Your task to perform on an android device: Go to ESPN.com Image 0: 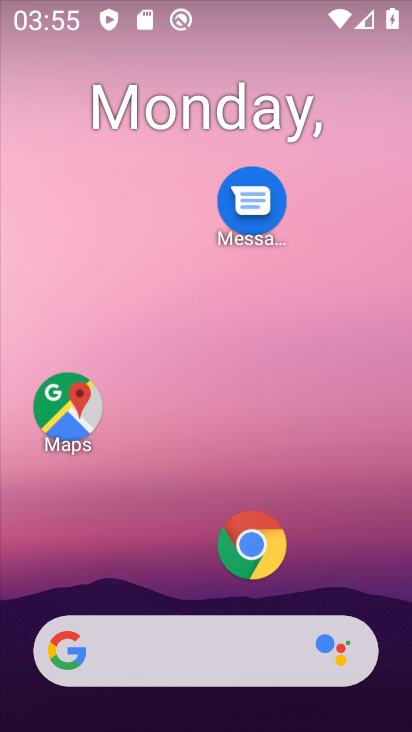
Step 0: click (239, 545)
Your task to perform on an android device: Go to ESPN.com Image 1: 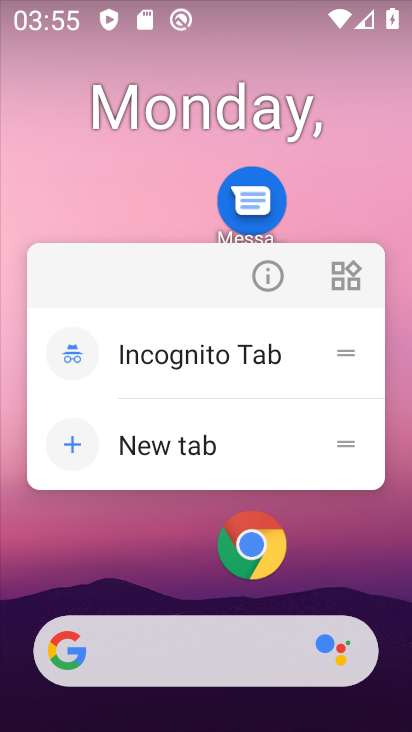
Step 1: click (261, 543)
Your task to perform on an android device: Go to ESPN.com Image 2: 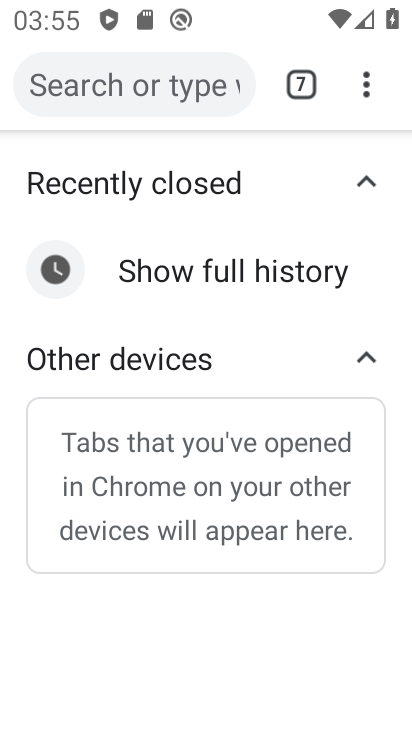
Step 2: click (301, 85)
Your task to perform on an android device: Go to ESPN.com Image 3: 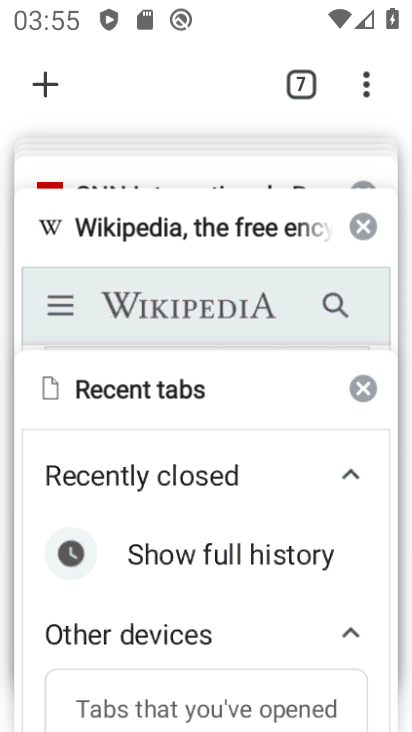
Step 3: drag from (170, 230) to (157, 652)
Your task to perform on an android device: Go to ESPN.com Image 4: 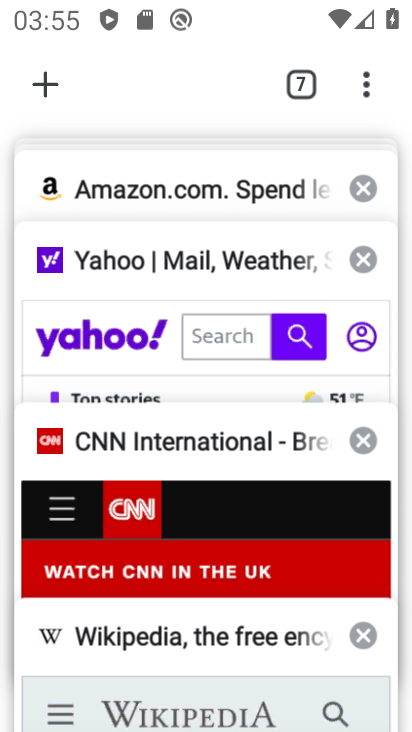
Step 4: drag from (173, 190) to (173, 568)
Your task to perform on an android device: Go to ESPN.com Image 5: 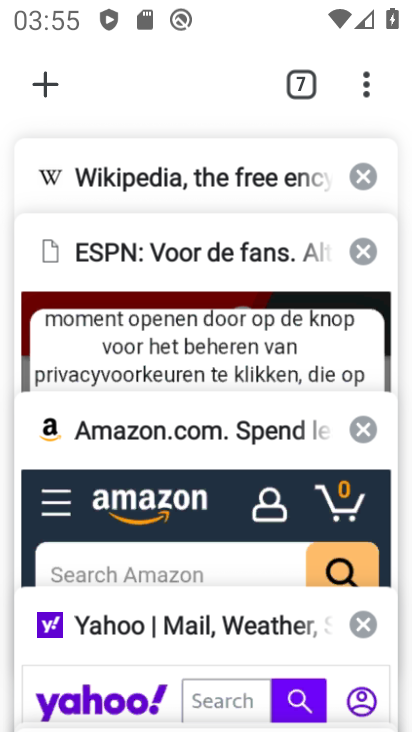
Step 5: drag from (148, 211) to (140, 461)
Your task to perform on an android device: Go to ESPN.com Image 6: 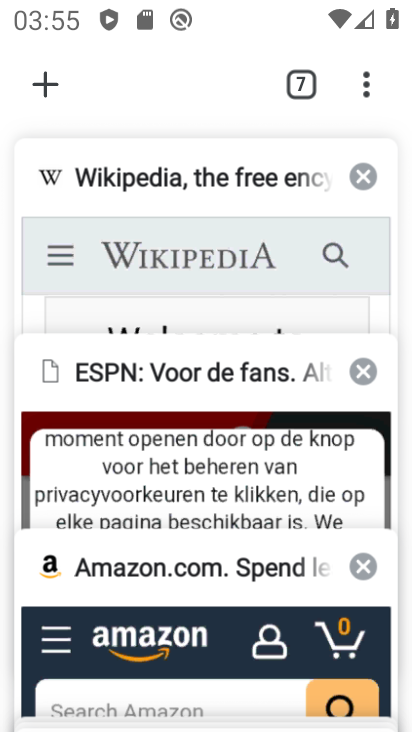
Step 6: click (126, 373)
Your task to perform on an android device: Go to ESPN.com Image 7: 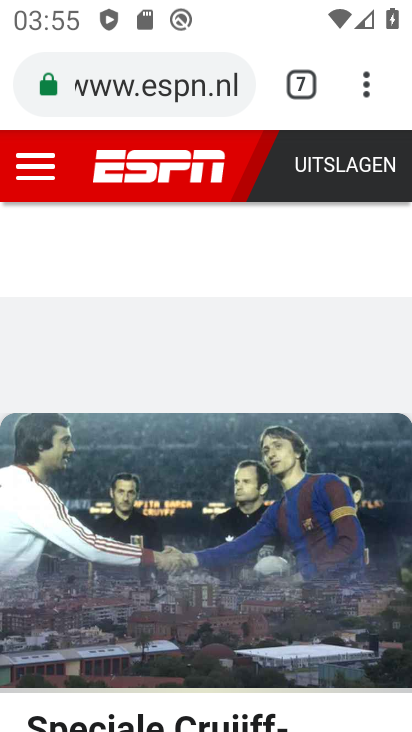
Step 7: task complete